Your task to perform on an android device: Open privacy settings Image 0: 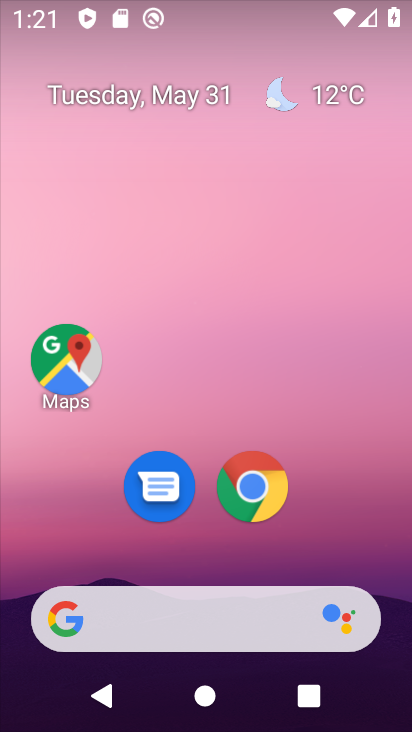
Step 0: drag from (200, 547) to (276, 0)
Your task to perform on an android device: Open privacy settings Image 1: 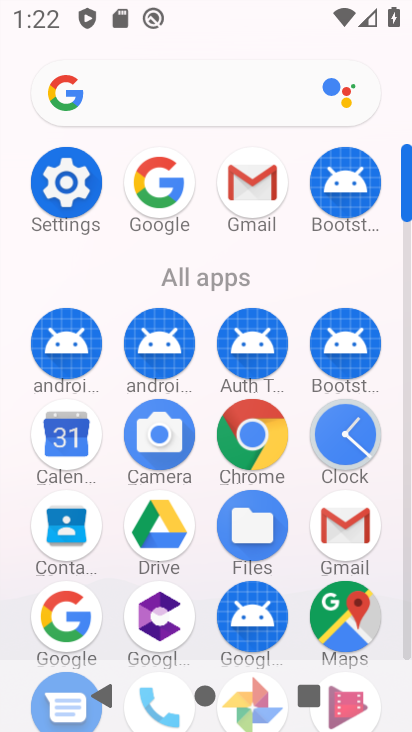
Step 1: click (67, 181)
Your task to perform on an android device: Open privacy settings Image 2: 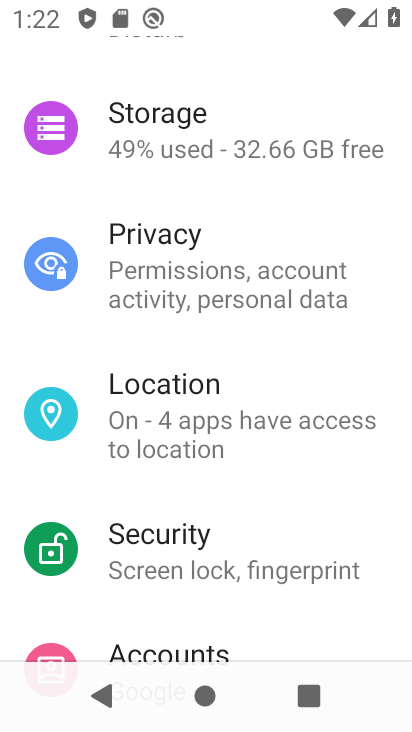
Step 2: drag from (227, 616) to (226, 544)
Your task to perform on an android device: Open privacy settings Image 3: 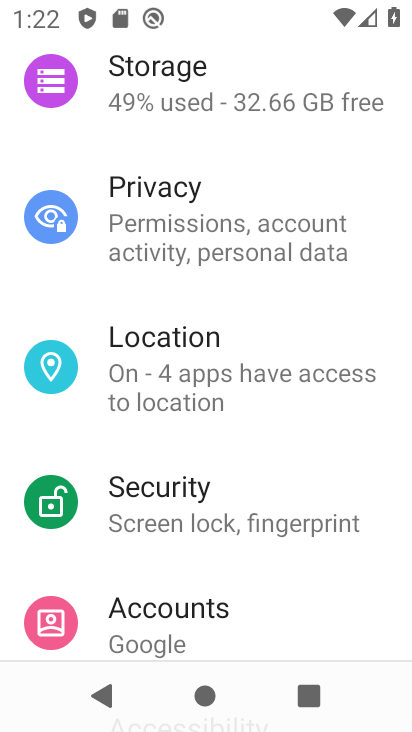
Step 3: click (161, 232)
Your task to perform on an android device: Open privacy settings Image 4: 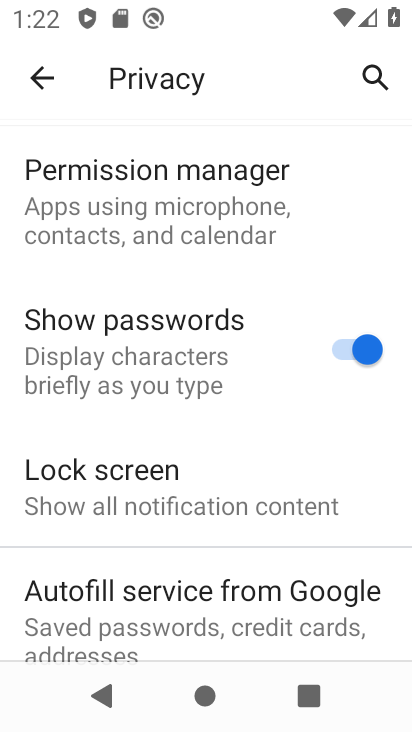
Step 4: task complete